Your task to perform on an android device: View the shopping cart on costco.com. Add bose soundlink to the cart on costco.com Image 0: 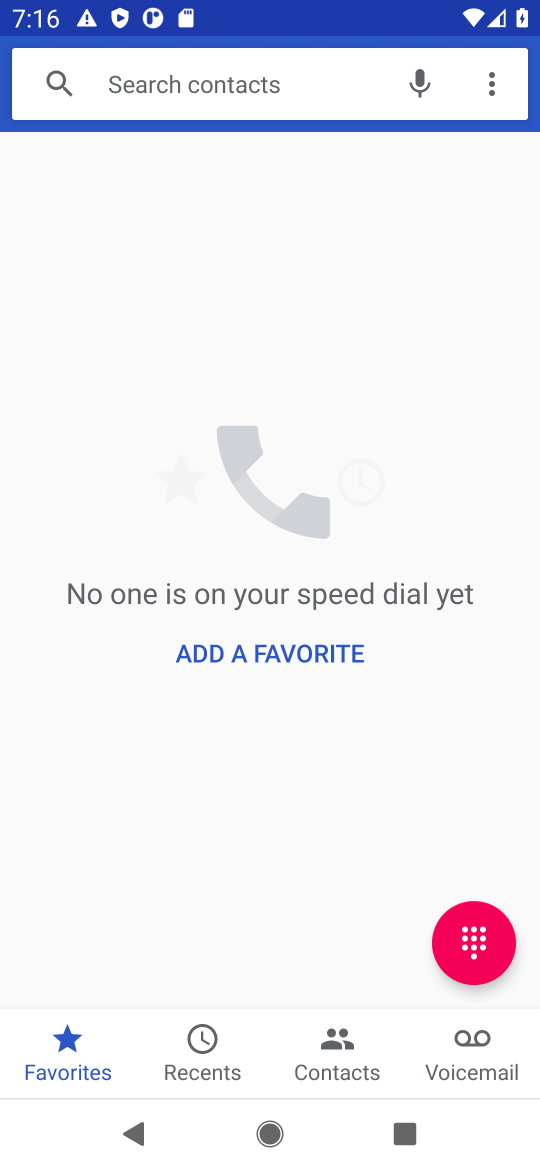
Step 0: press home button
Your task to perform on an android device: View the shopping cart on costco.com. Add bose soundlink to the cart on costco.com Image 1: 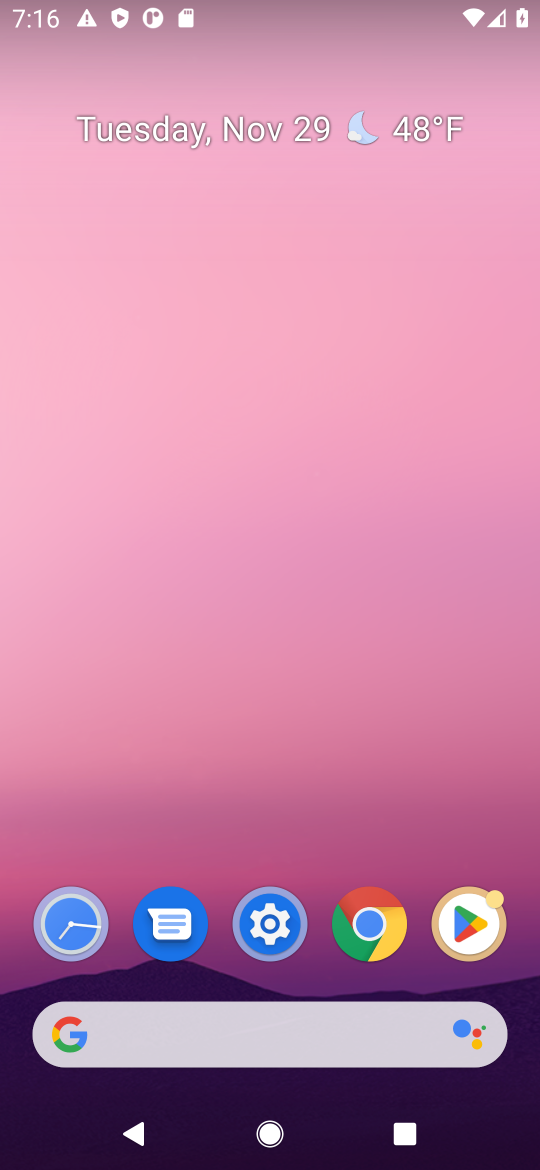
Step 1: click (336, 1031)
Your task to perform on an android device: View the shopping cart on costco.com. Add bose soundlink to the cart on costco.com Image 2: 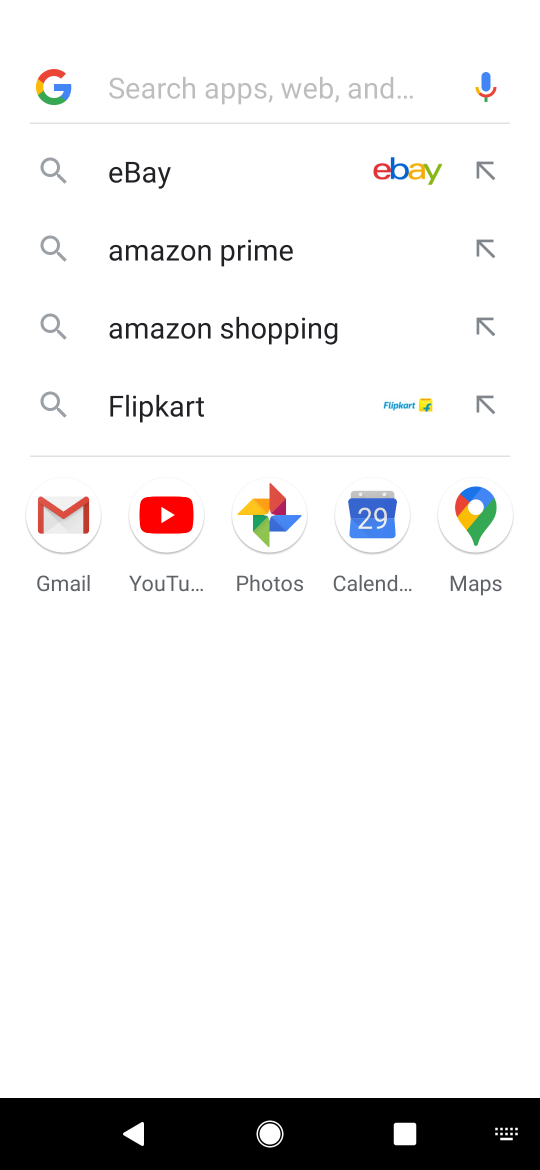
Step 2: type "costco.com"
Your task to perform on an android device: View the shopping cart on costco.com. Add bose soundlink to the cart on costco.com Image 3: 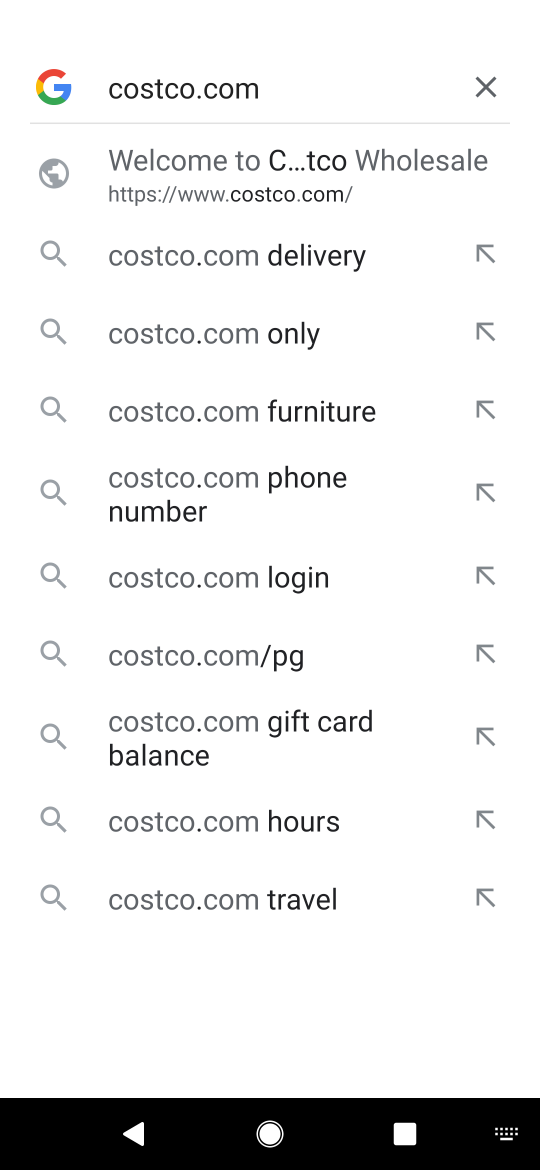
Step 3: click (191, 196)
Your task to perform on an android device: View the shopping cart on costco.com. Add bose soundlink to the cart on costco.com Image 4: 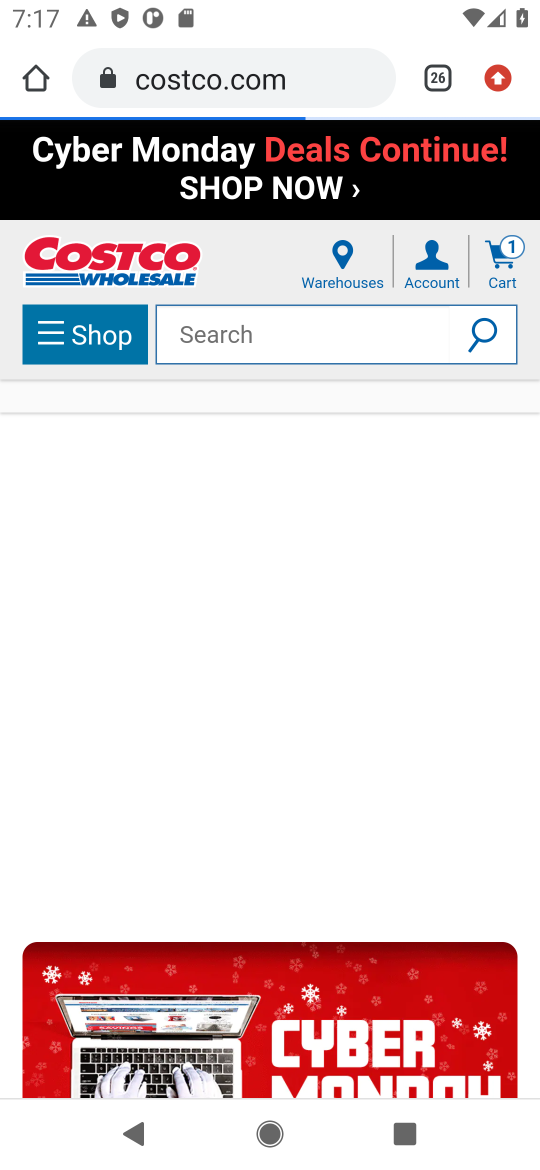
Step 4: click (273, 325)
Your task to perform on an android device: View the shopping cart on costco.com. Add bose soundlink to the cart on costco.com Image 5: 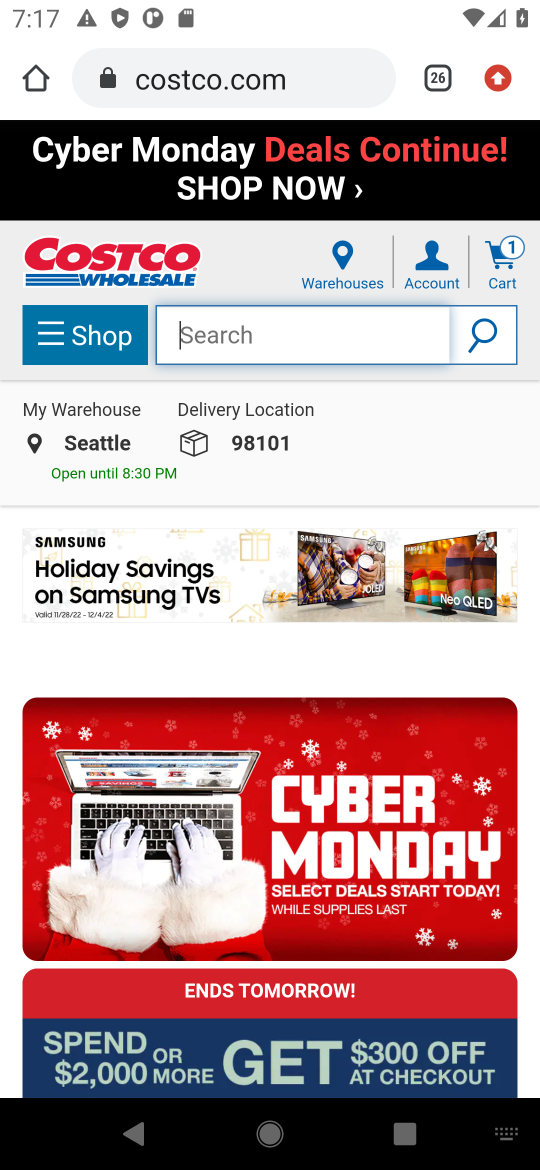
Step 5: type "bose soundlink"
Your task to perform on an android device: View the shopping cart on costco.com. Add bose soundlink to the cart on costco.com Image 6: 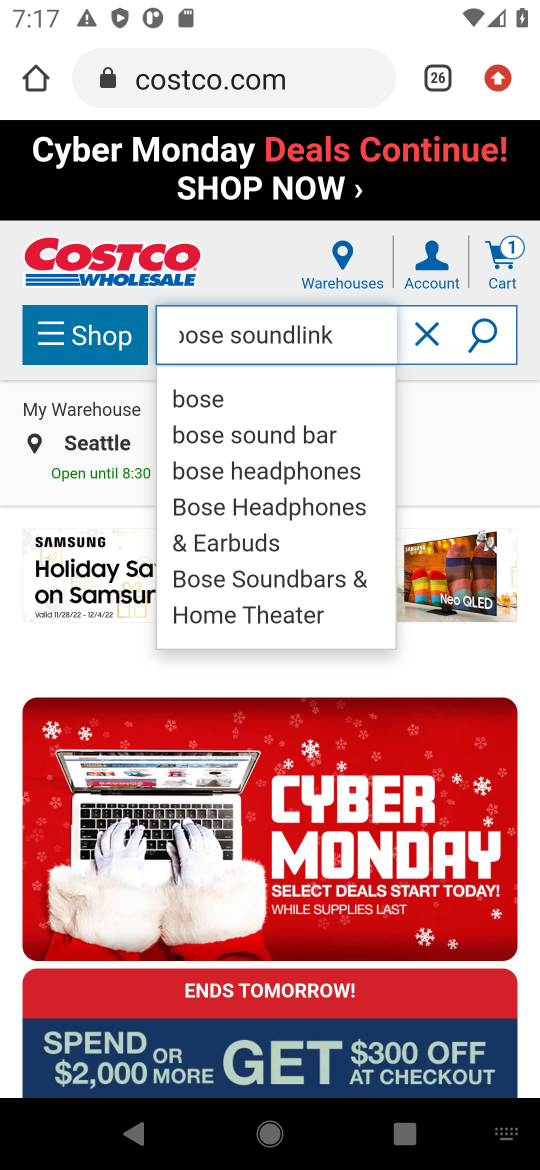
Step 6: click (466, 329)
Your task to perform on an android device: View the shopping cart on costco.com. Add bose soundlink to the cart on costco.com Image 7: 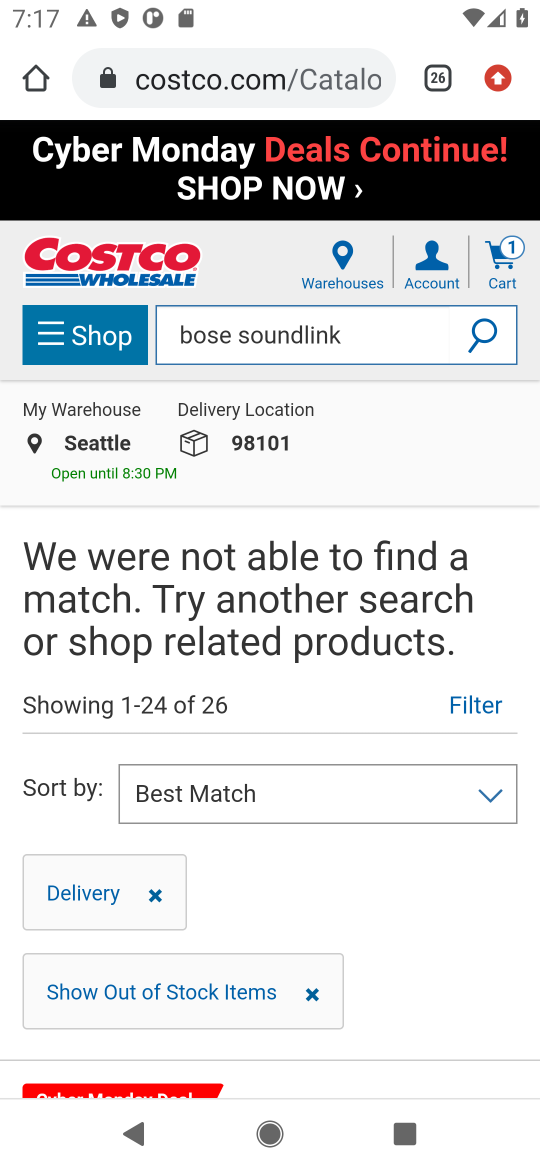
Step 7: drag from (412, 924) to (296, 357)
Your task to perform on an android device: View the shopping cart on costco.com. Add bose soundlink to the cart on costco.com Image 8: 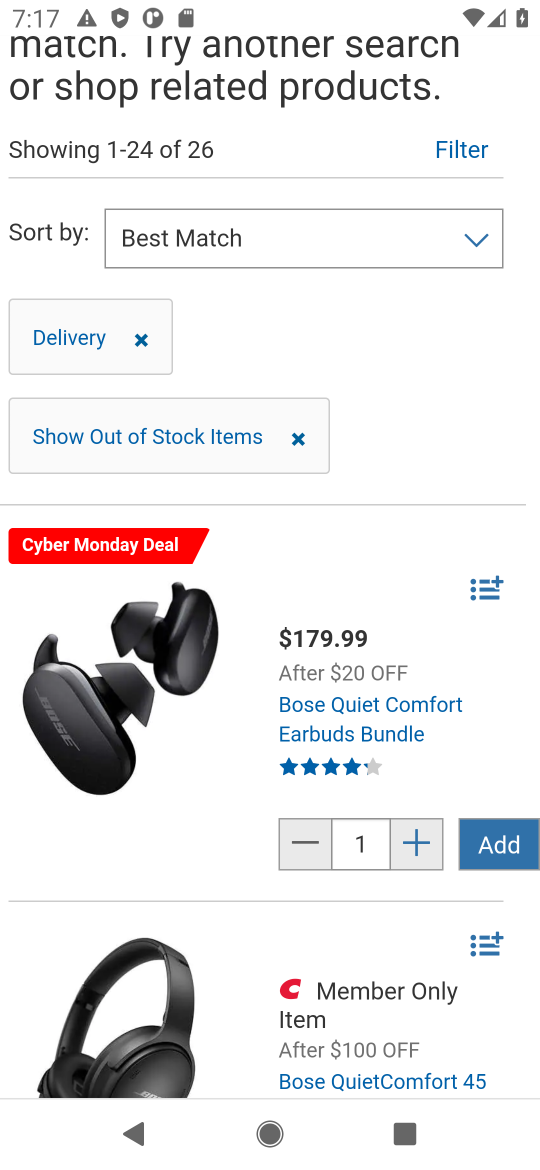
Step 8: click (477, 852)
Your task to perform on an android device: View the shopping cart on costco.com. Add bose soundlink to the cart on costco.com Image 9: 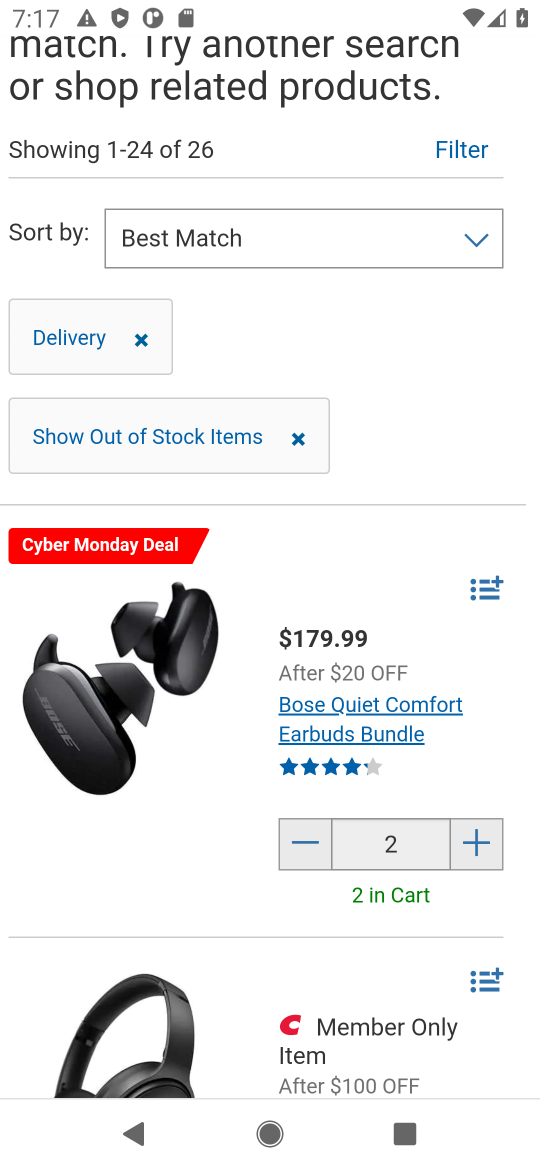
Step 9: task complete